Your task to perform on an android device: read, delete, or share a saved page in the chrome app Image 0: 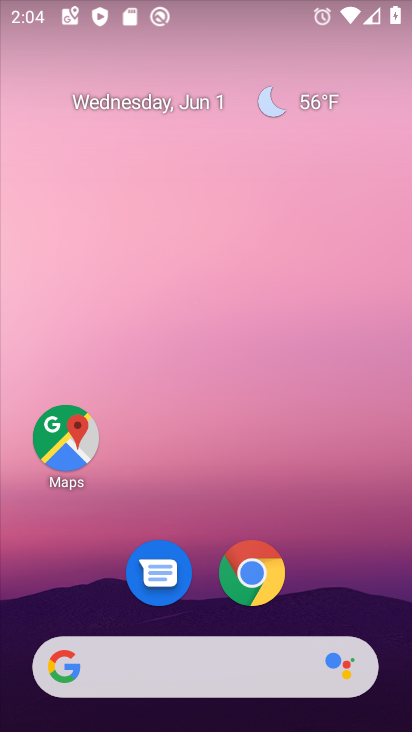
Step 0: drag from (348, 553) to (279, 50)
Your task to perform on an android device: read, delete, or share a saved page in the chrome app Image 1: 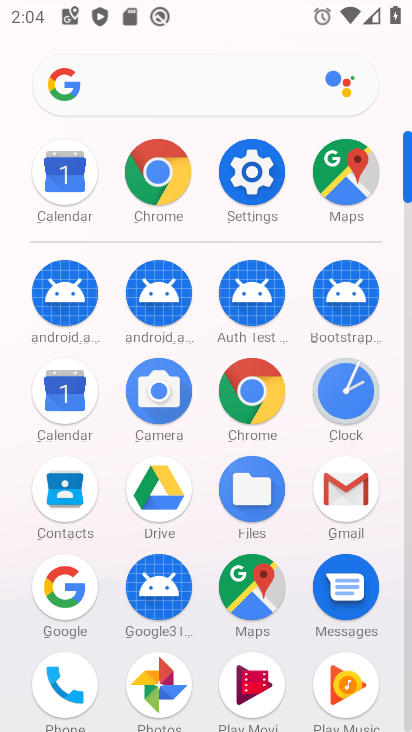
Step 1: click (149, 194)
Your task to perform on an android device: read, delete, or share a saved page in the chrome app Image 2: 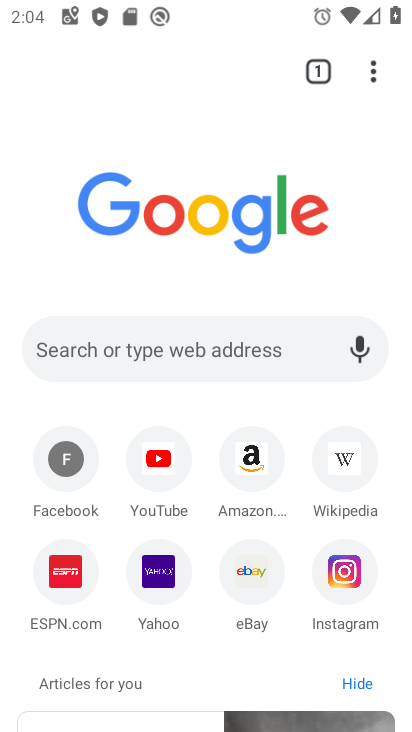
Step 2: task complete